Your task to perform on an android device: toggle data saver in the chrome app Image 0: 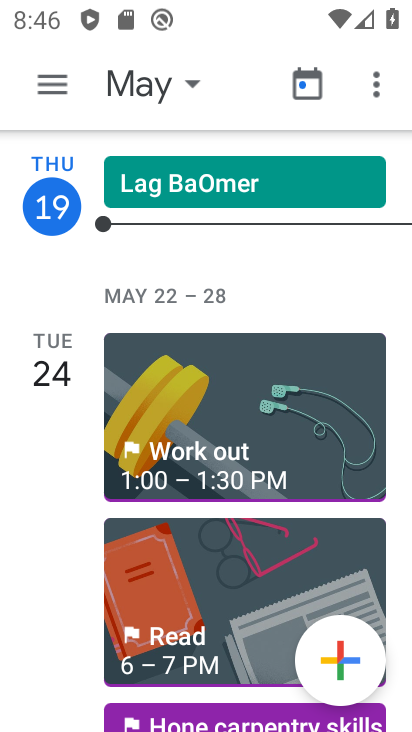
Step 0: press home button
Your task to perform on an android device: toggle data saver in the chrome app Image 1: 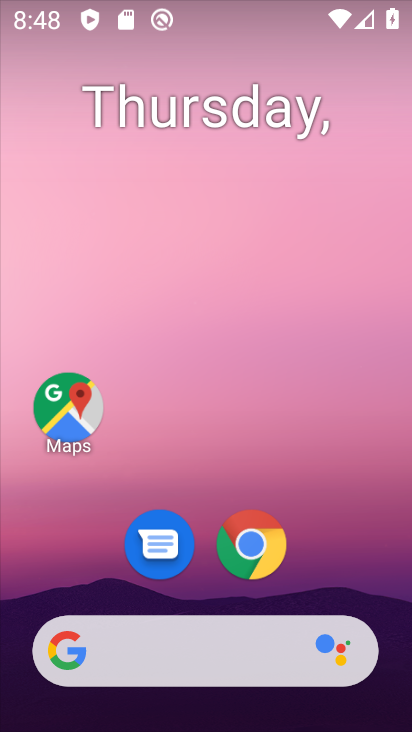
Step 1: click (242, 539)
Your task to perform on an android device: toggle data saver in the chrome app Image 2: 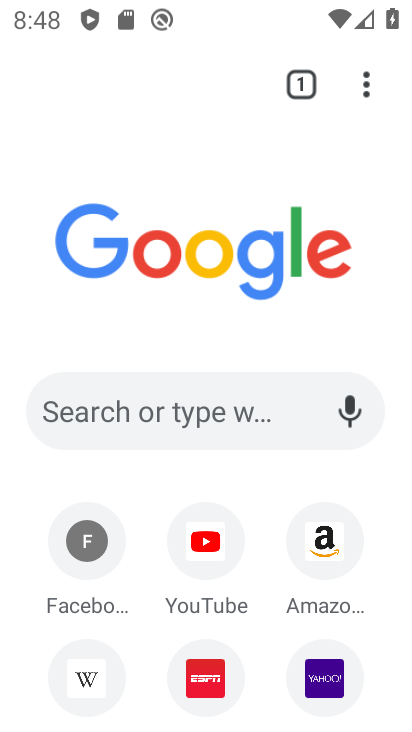
Step 2: click (373, 73)
Your task to perform on an android device: toggle data saver in the chrome app Image 3: 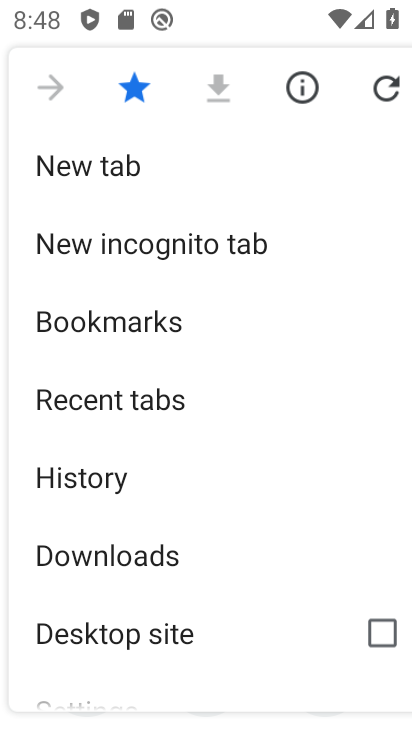
Step 3: click (196, 701)
Your task to perform on an android device: toggle data saver in the chrome app Image 4: 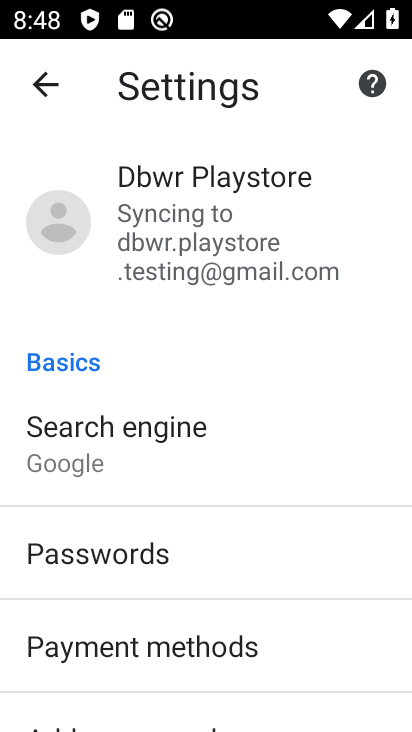
Step 4: drag from (323, 677) to (334, 171)
Your task to perform on an android device: toggle data saver in the chrome app Image 5: 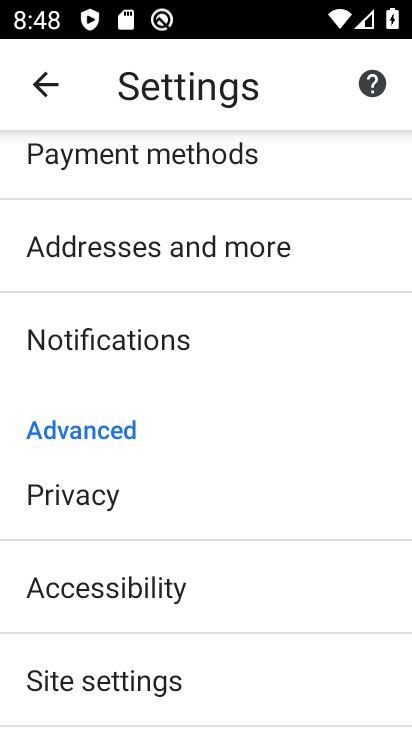
Step 5: drag from (221, 685) to (254, 120)
Your task to perform on an android device: toggle data saver in the chrome app Image 6: 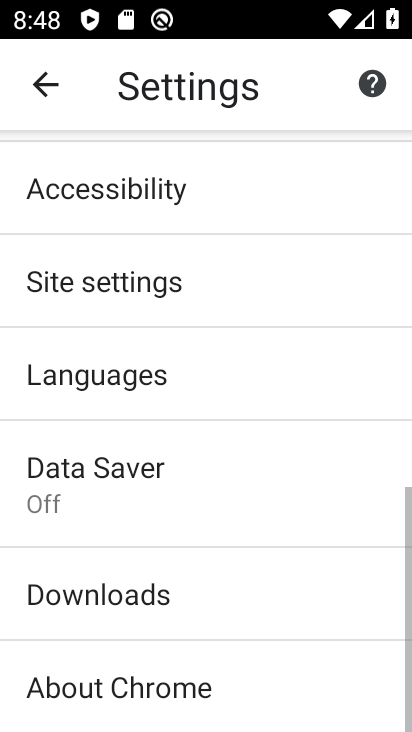
Step 6: click (160, 463)
Your task to perform on an android device: toggle data saver in the chrome app Image 7: 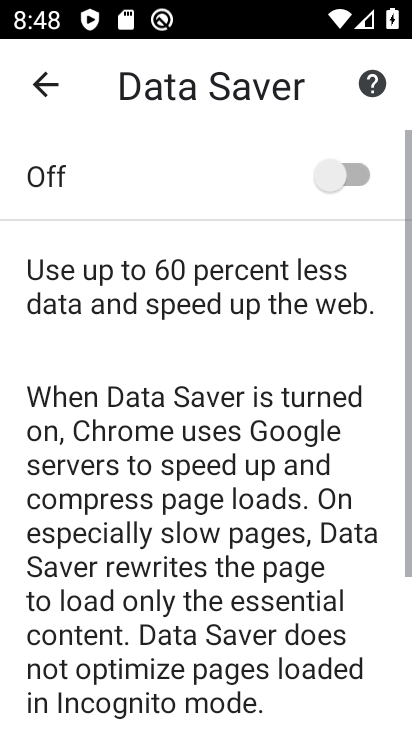
Step 7: click (342, 183)
Your task to perform on an android device: toggle data saver in the chrome app Image 8: 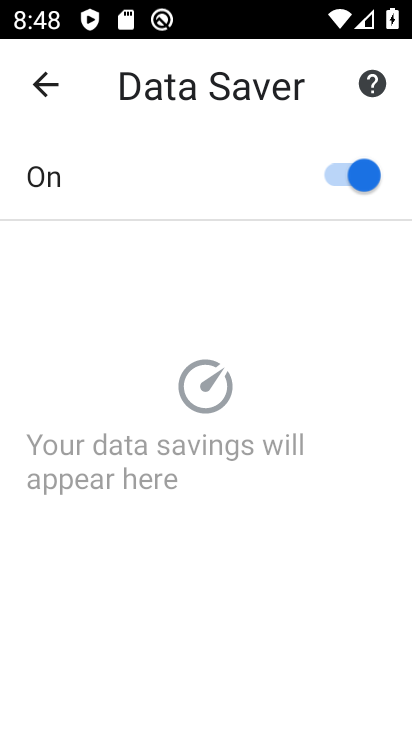
Step 8: task complete